Your task to perform on an android device: turn on the 12-hour format for clock Image 0: 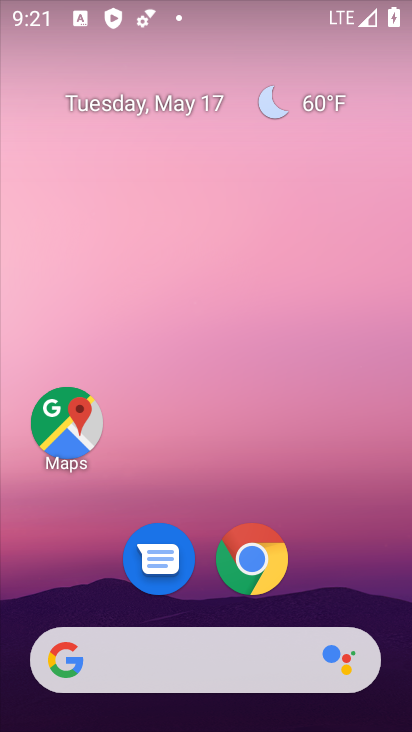
Step 0: drag from (212, 588) to (215, 204)
Your task to perform on an android device: turn on the 12-hour format for clock Image 1: 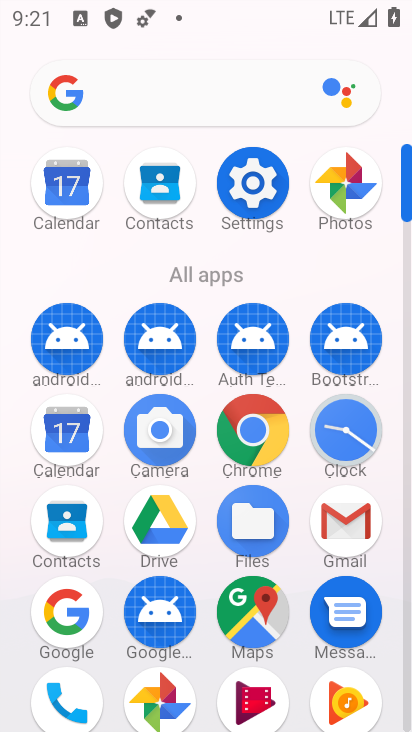
Step 1: click (327, 436)
Your task to perform on an android device: turn on the 12-hour format for clock Image 2: 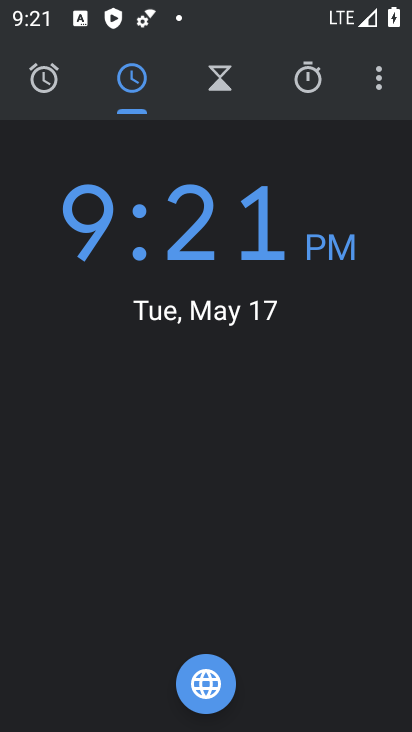
Step 2: click (377, 76)
Your task to perform on an android device: turn on the 12-hour format for clock Image 3: 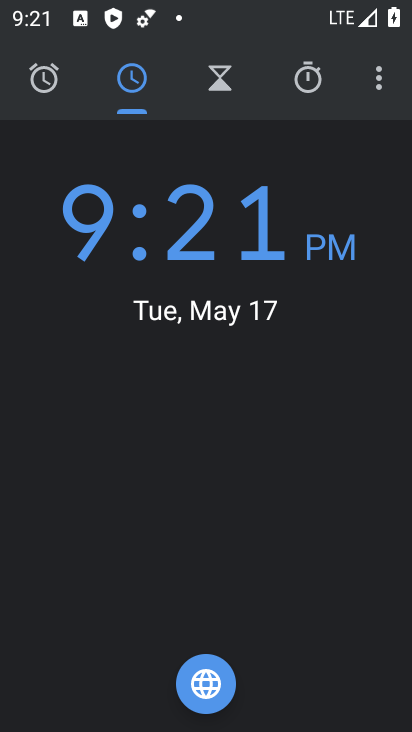
Step 3: click (377, 76)
Your task to perform on an android device: turn on the 12-hour format for clock Image 4: 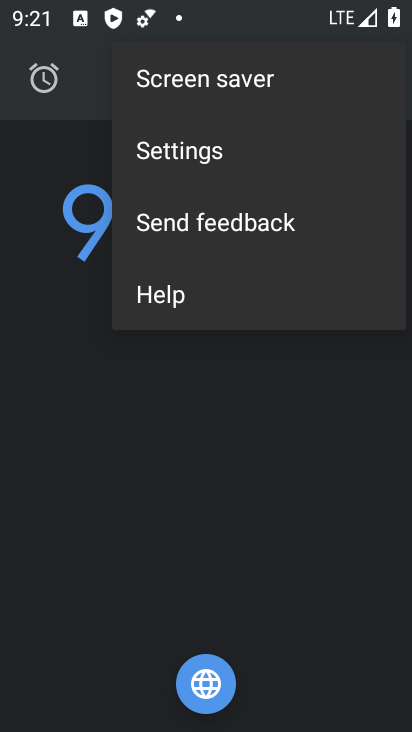
Step 4: click (309, 146)
Your task to perform on an android device: turn on the 12-hour format for clock Image 5: 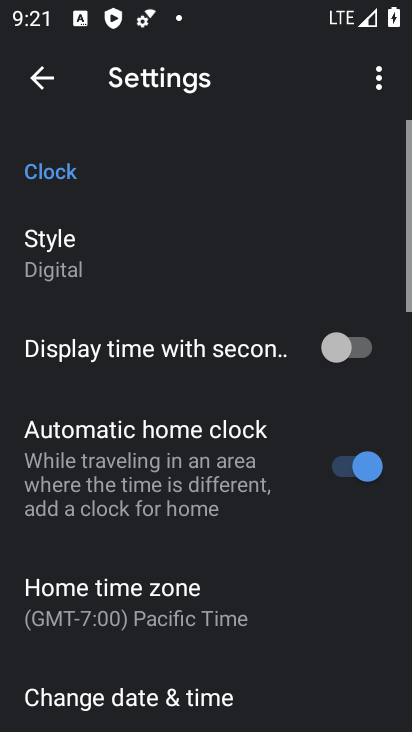
Step 5: drag from (165, 658) to (199, 405)
Your task to perform on an android device: turn on the 12-hour format for clock Image 6: 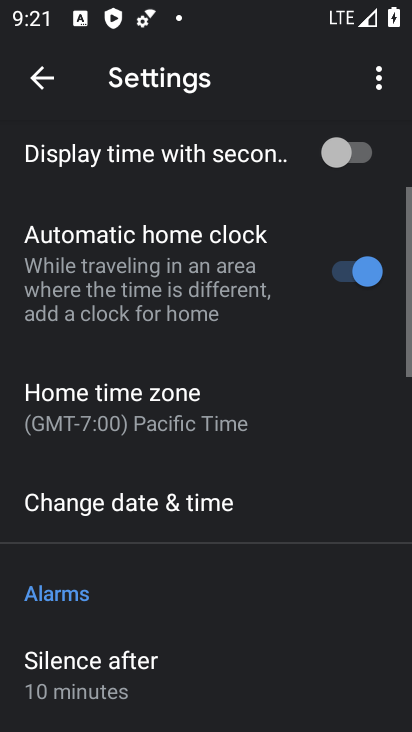
Step 6: click (177, 532)
Your task to perform on an android device: turn on the 12-hour format for clock Image 7: 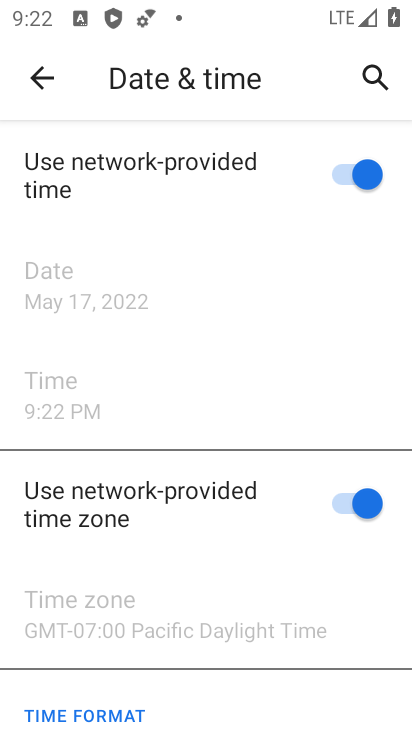
Step 7: task complete